Your task to perform on an android device: change alarm snooze length Image 0: 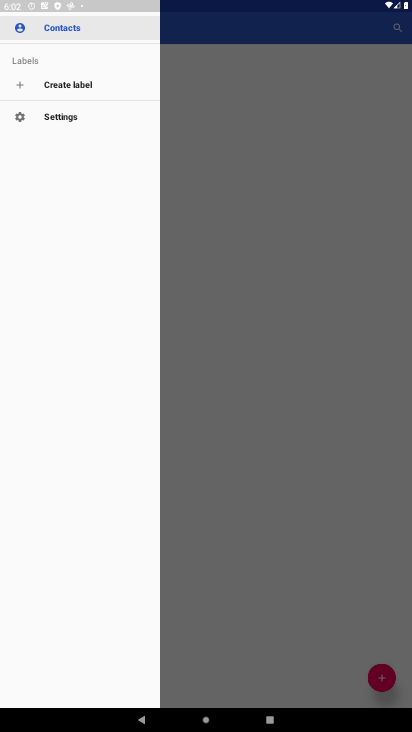
Step 0: press home button
Your task to perform on an android device: change alarm snooze length Image 1: 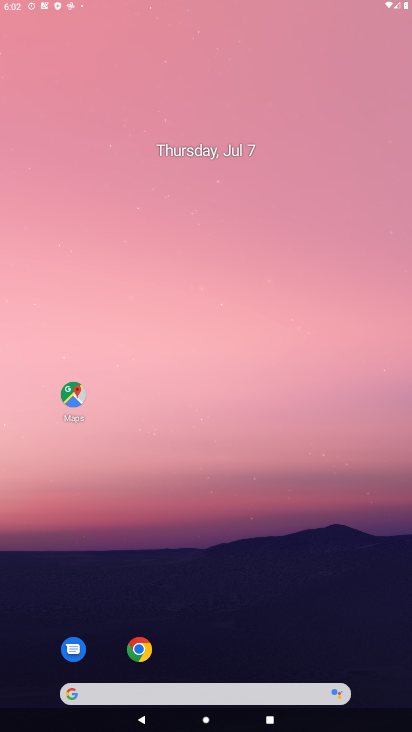
Step 1: drag from (401, 676) to (250, 0)
Your task to perform on an android device: change alarm snooze length Image 2: 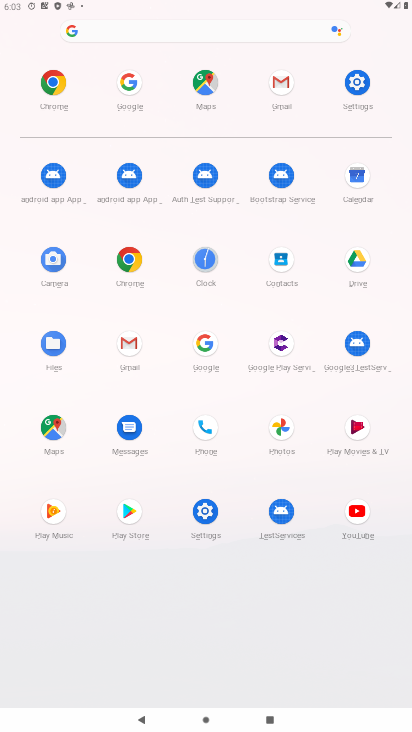
Step 2: click (202, 268)
Your task to perform on an android device: change alarm snooze length Image 3: 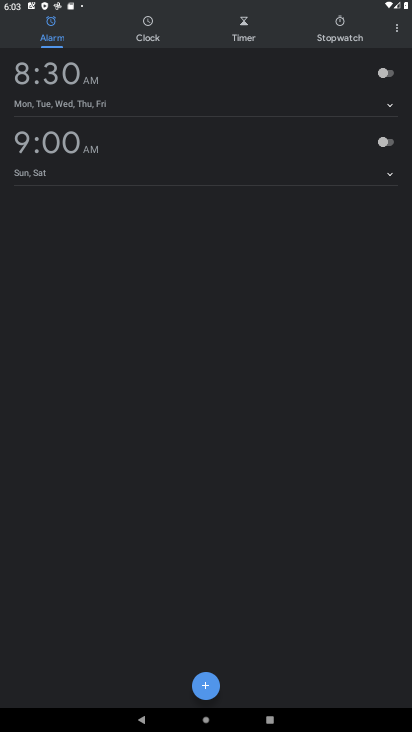
Step 3: click (397, 30)
Your task to perform on an android device: change alarm snooze length Image 4: 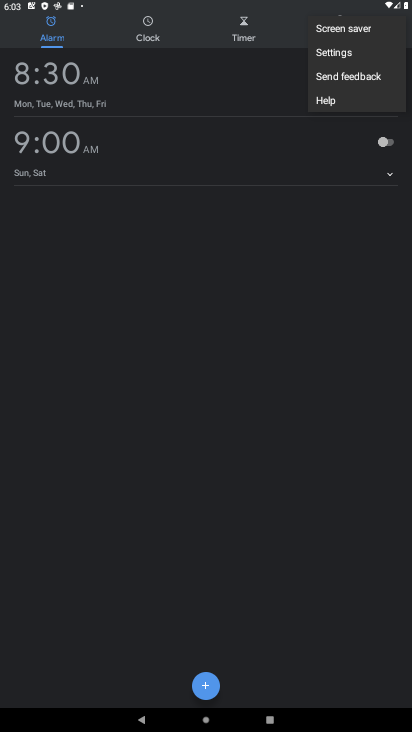
Step 4: click (329, 59)
Your task to perform on an android device: change alarm snooze length Image 5: 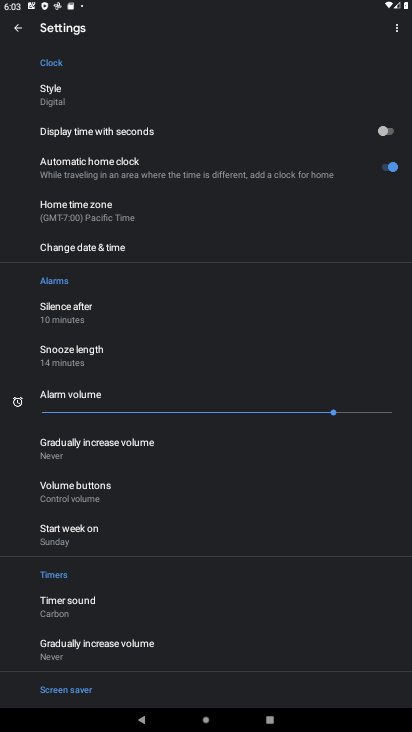
Step 5: click (67, 359)
Your task to perform on an android device: change alarm snooze length Image 6: 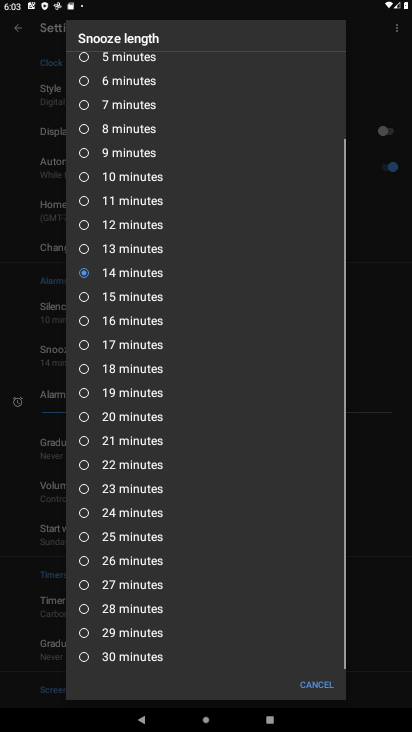
Step 6: click (100, 340)
Your task to perform on an android device: change alarm snooze length Image 7: 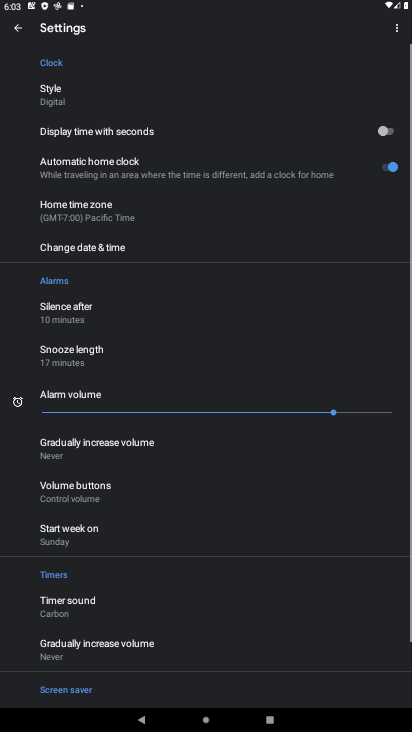
Step 7: task complete